Your task to perform on an android device: What is the recent news? Image 0: 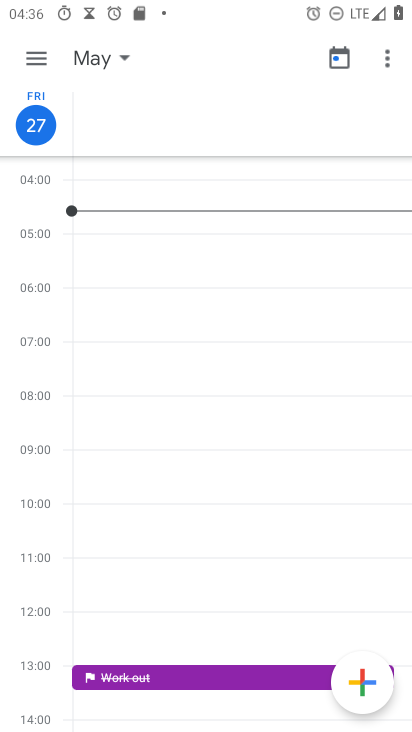
Step 0: drag from (205, 726) to (187, 286)
Your task to perform on an android device: What is the recent news? Image 1: 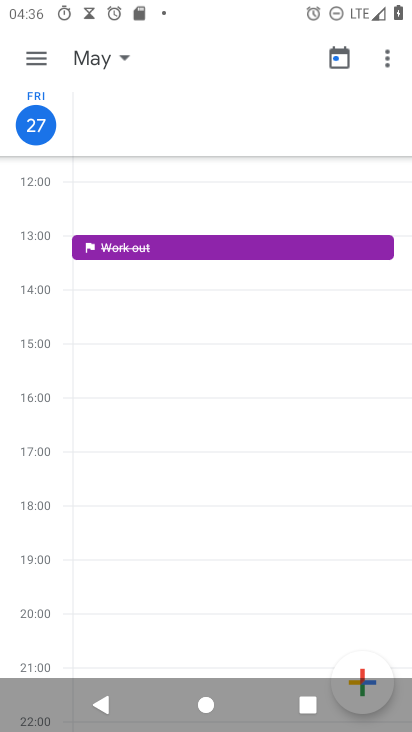
Step 1: task complete